Your task to perform on an android device: Search for "bose soundsport free" on target.com, select the first entry, add it to the cart, then select checkout. Image 0: 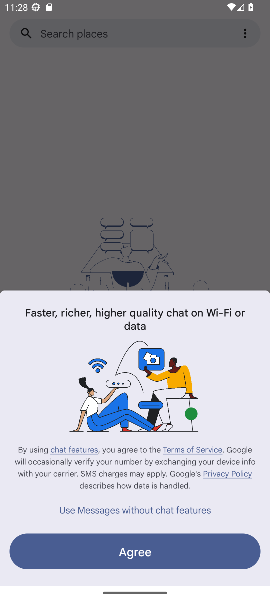
Step 0: press home button
Your task to perform on an android device: Search for "bose soundsport free" on target.com, select the first entry, add it to the cart, then select checkout. Image 1: 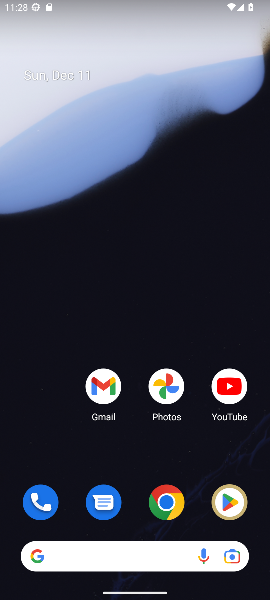
Step 1: click (133, 549)
Your task to perform on an android device: Search for "bose soundsport free" on target.com, select the first entry, add it to the cart, then select checkout. Image 2: 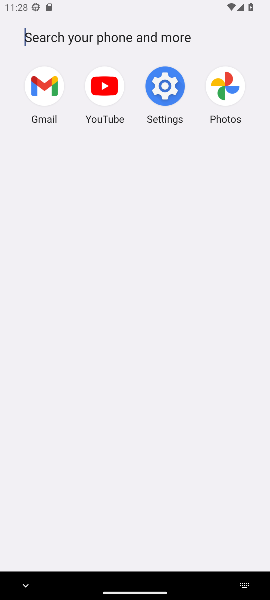
Step 2: type "target"
Your task to perform on an android device: Search for "bose soundsport free" on target.com, select the first entry, add it to the cart, then select checkout. Image 3: 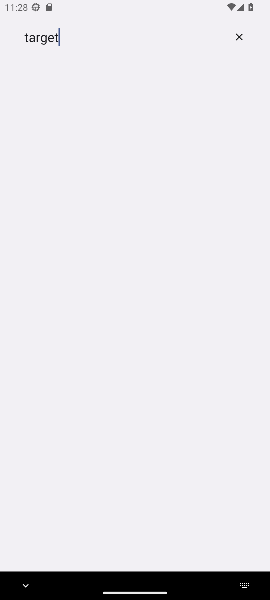
Step 3: press home button
Your task to perform on an android device: Search for "bose soundsport free" on target.com, select the first entry, add it to the cart, then select checkout. Image 4: 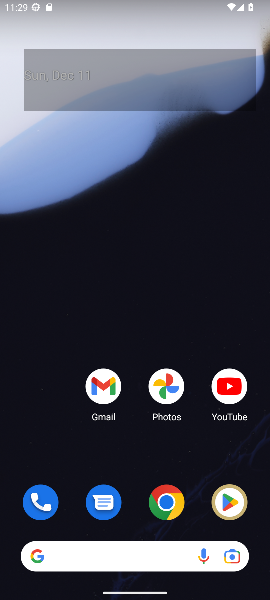
Step 4: click (168, 504)
Your task to perform on an android device: Search for "bose soundsport free" on target.com, select the first entry, add it to the cart, then select checkout. Image 5: 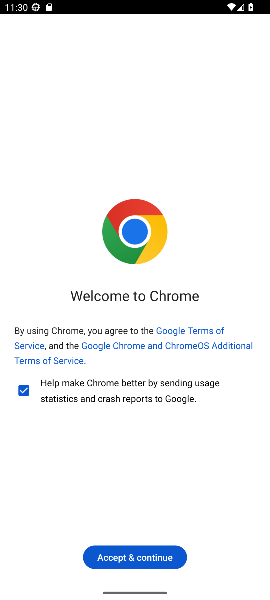
Step 5: click (115, 571)
Your task to perform on an android device: Search for "bose soundsport free" on target.com, select the first entry, add it to the cart, then select checkout. Image 6: 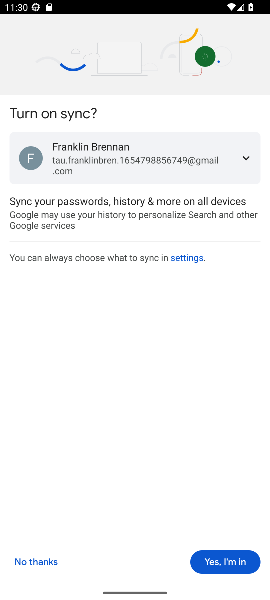
Step 6: click (217, 571)
Your task to perform on an android device: Search for "bose soundsport free" on target.com, select the first entry, add it to the cart, then select checkout. Image 7: 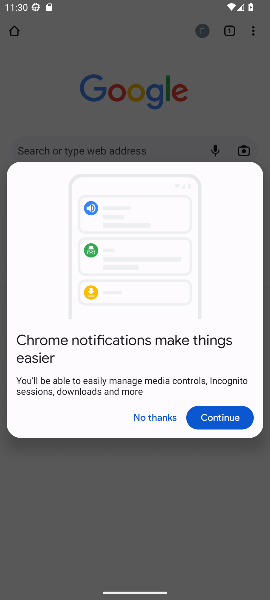
Step 7: click (229, 407)
Your task to perform on an android device: Search for "bose soundsport free" on target.com, select the first entry, add it to the cart, then select checkout. Image 8: 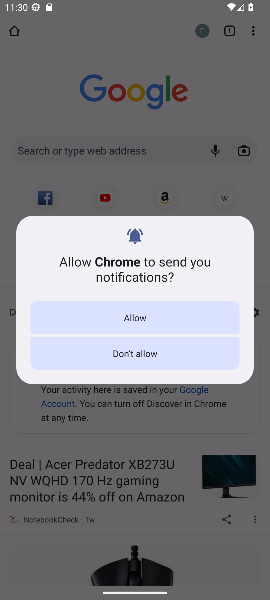
Step 8: click (77, 306)
Your task to perform on an android device: Search for "bose soundsport free" on target.com, select the first entry, add it to the cart, then select checkout. Image 9: 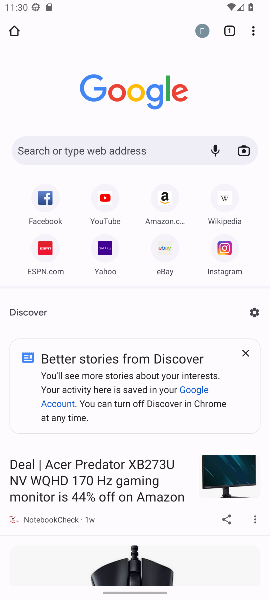
Step 9: click (158, 149)
Your task to perform on an android device: Search for "bose soundsport free" on target.com, select the first entry, add it to the cart, then select checkout. Image 10: 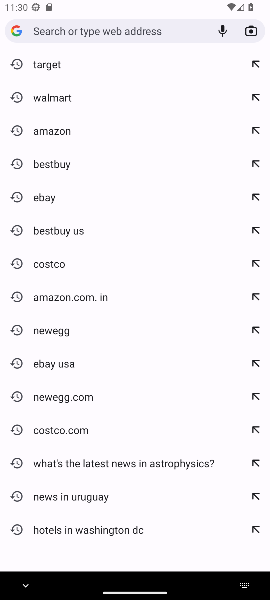
Step 10: type "target"
Your task to perform on an android device: Search for "bose soundsport free" on target.com, select the first entry, add it to the cart, then select checkout. Image 11: 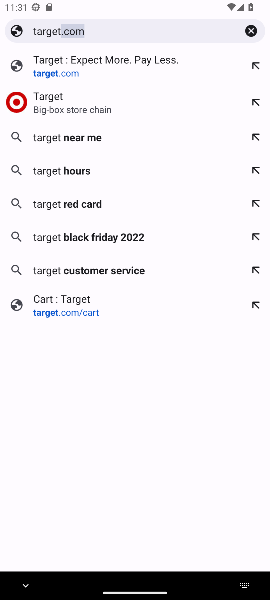
Step 11: click (77, 73)
Your task to perform on an android device: Search for "bose soundsport free" on target.com, select the first entry, add it to the cart, then select checkout. Image 12: 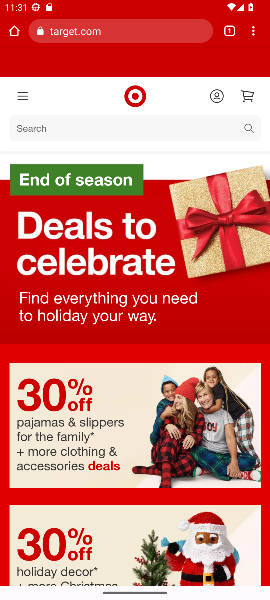
Step 12: click (78, 128)
Your task to perform on an android device: Search for "bose soundsport free" on target.com, select the first entry, add it to the cart, then select checkout. Image 13: 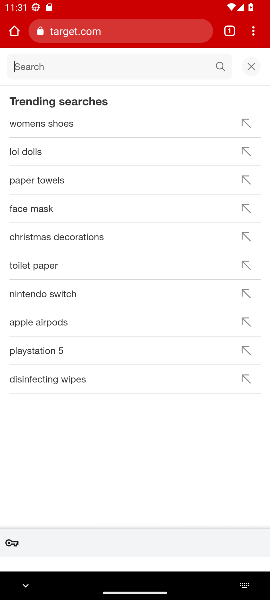
Step 13: type "bose soundsports"
Your task to perform on an android device: Search for "bose soundsport free" on target.com, select the first entry, add it to the cart, then select checkout. Image 14: 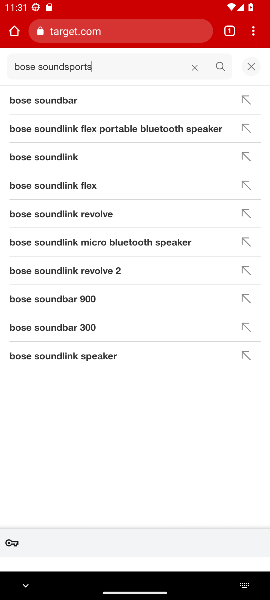
Step 14: click (219, 62)
Your task to perform on an android device: Search for "bose soundsport free" on target.com, select the first entry, add it to the cart, then select checkout. Image 15: 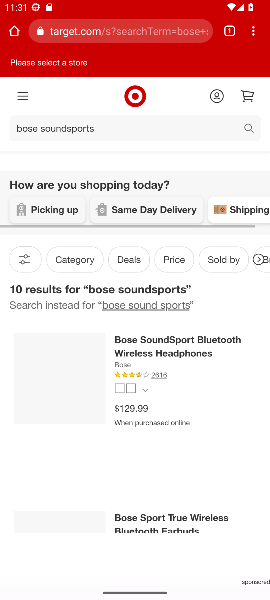
Step 15: click (222, 346)
Your task to perform on an android device: Search for "bose soundsport free" on target.com, select the first entry, add it to the cart, then select checkout. Image 16: 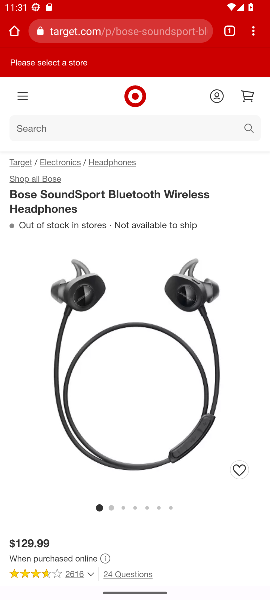
Step 16: drag from (213, 524) to (203, 216)
Your task to perform on an android device: Search for "bose soundsport free" on target.com, select the first entry, add it to the cart, then select checkout. Image 17: 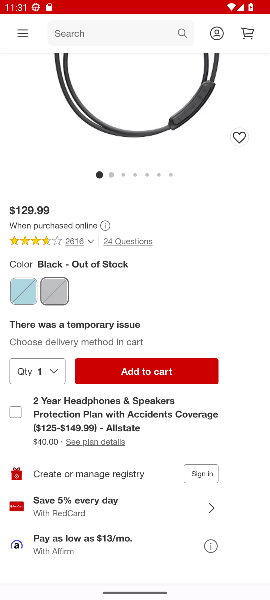
Step 17: click (197, 360)
Your task to perform on an android device: Search for "bose soundsport free" on target.com, select the first entry, add it to the cart, then select checkout. Image 18: 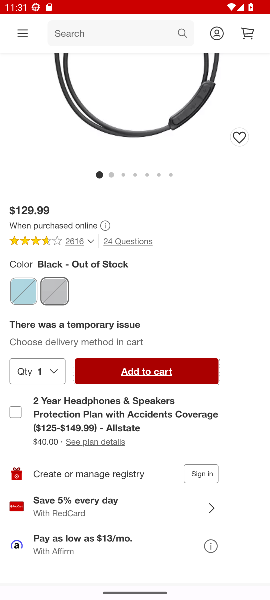
Step 18: task complete